Your task to perform on an android device: find snoozed emails in the gmail app Image 0: 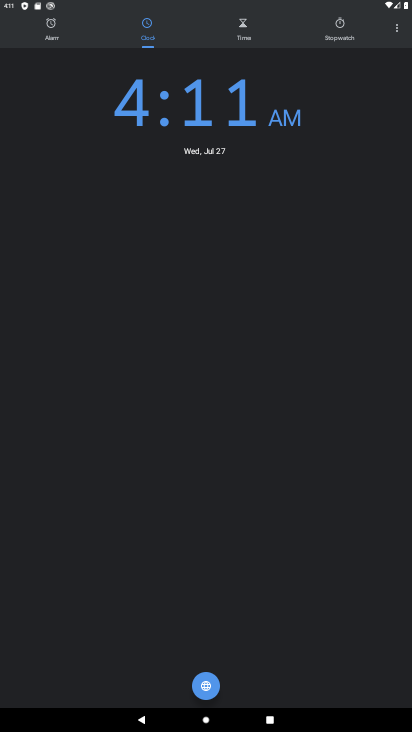
Step 0: press home button
Your task to perform on an android device: find snoozed emails in the gmail app Image 1: 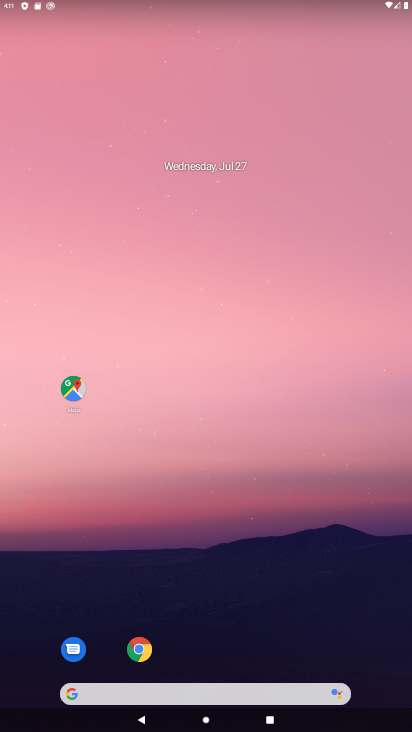
Step 1: drag from (160, 664) to (164, 182)
Your task to perform on an android device: find snoozed emails in the gmail app Image 2: 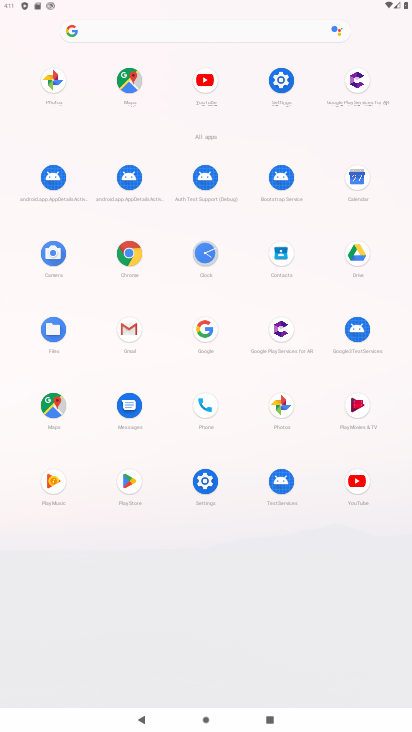
Step 2: click (126, 343)
Your task to perform on an android device: find snoozed emails in the gmail app Image 3: 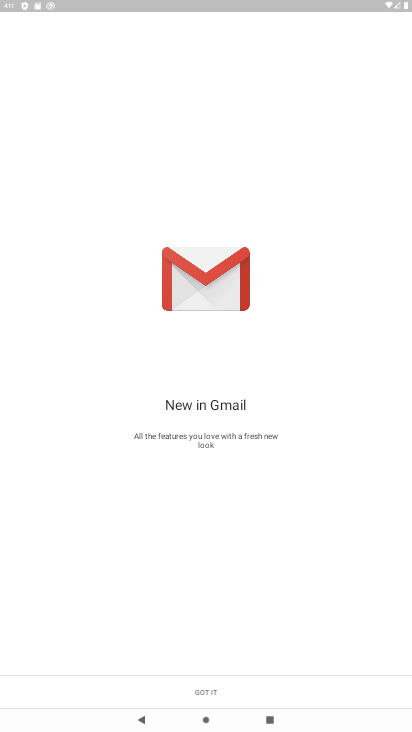
Step 3: click (203, 688)
Your task to perform on an android device: find snoozed emails in the gmail app Image 4: 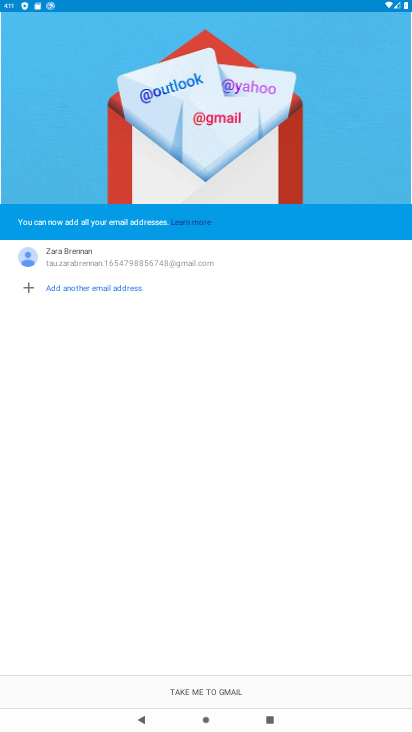
Step 4: click (203, 688)
Your task to perform on an android device: find snoozed emails in the gmail app Image 5: 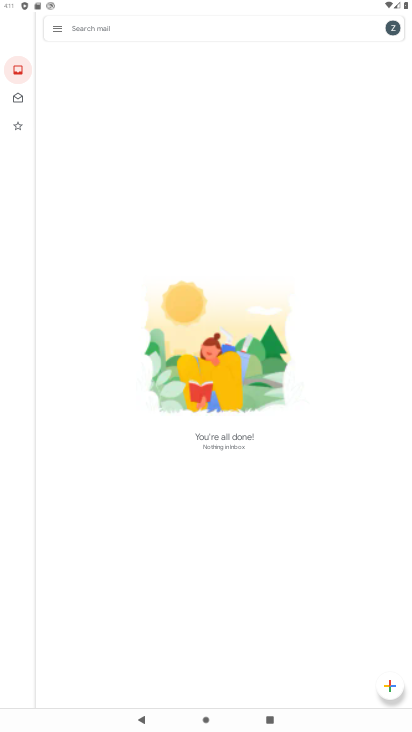
Step 5: click (54, 25)
Your task to perform on an android device: find snoozed emails in the gmail app Image 6: 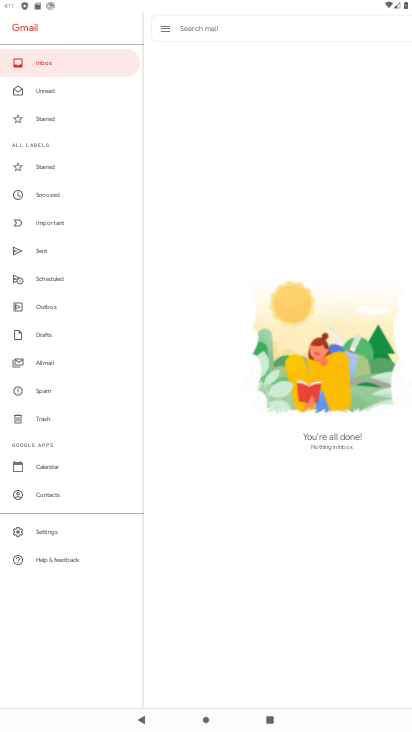
Step 6: click (49, 191)
Your task to perform on an android device: find snoozed emails in the gmail app Image 7: 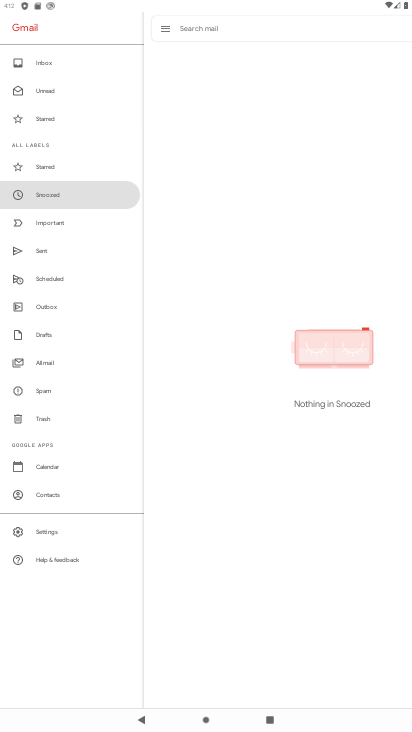
Step 7: task complete